Your task to perform on an android device: Go to internet settings Image 0: 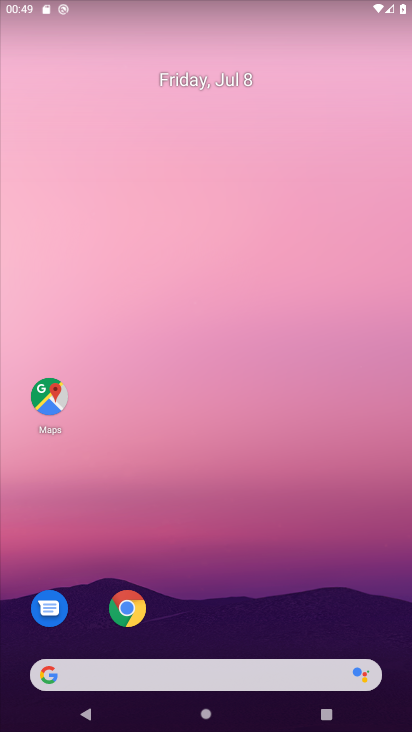
Step 0: drag from (234, 558) to (246, 220)
Your task to perform on an android device: Go to internet settings Image 1: 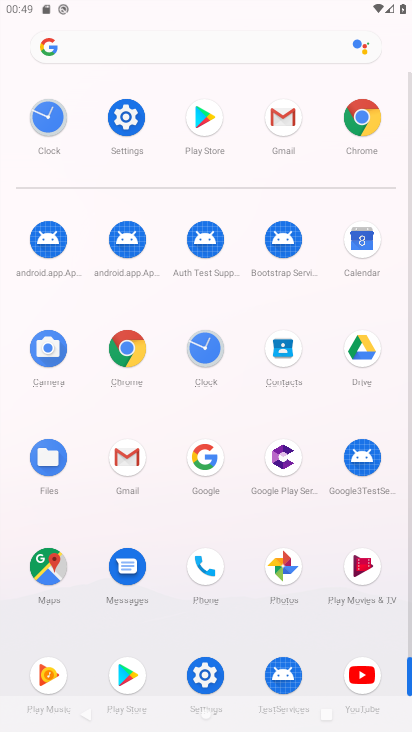
Step 1: click (130, 104)
Your task to perform on an android device: Go to internet settings Image 2: 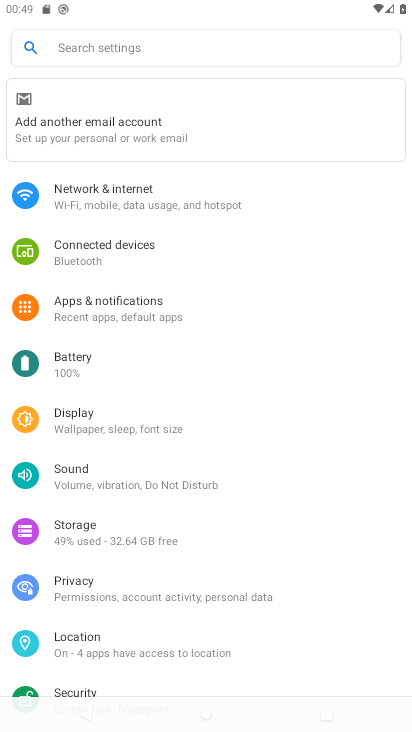
Step 2: click (143, 190)
Your task to perform on an android device: Go to internet settings Image 3: 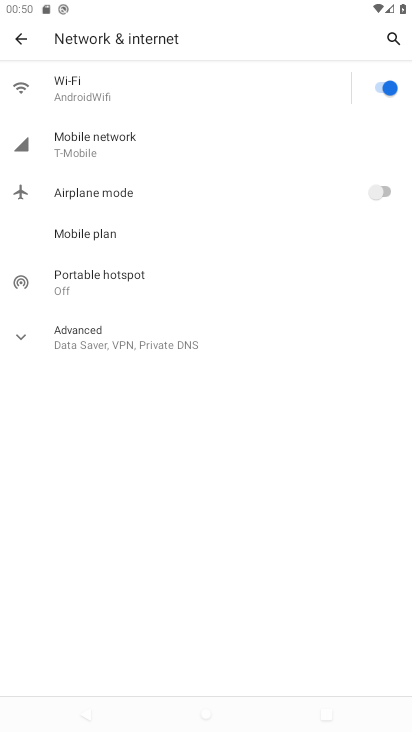
Step 3: task complete